Your task to perform on an android device: Search for Mexican restaurants on Maps Image 0: 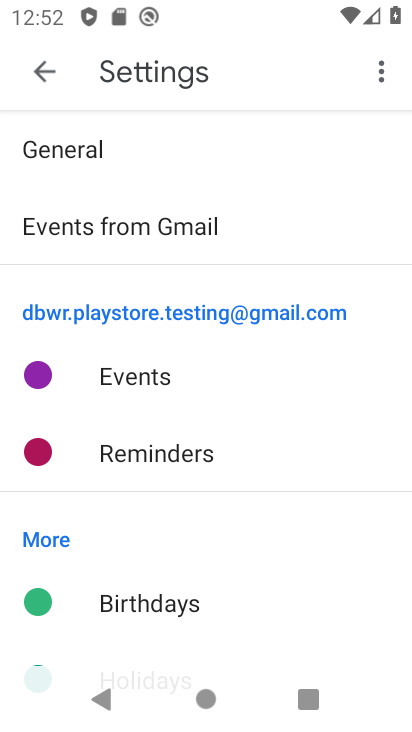
Step 0: press home button
Your task to perform on an android device: Search for Mexican restaurants on Maps Image 1: 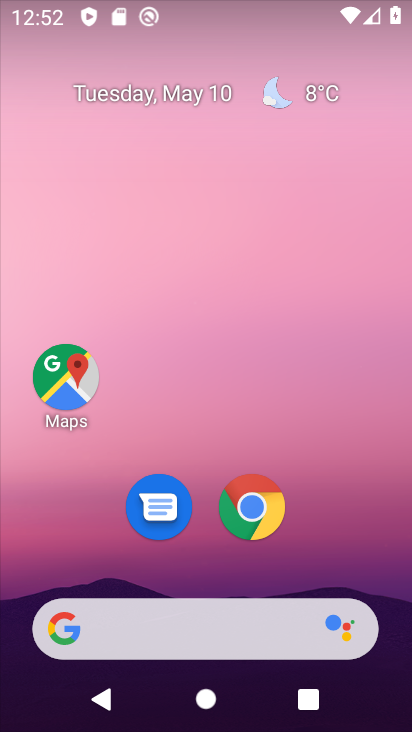
Step 1: drag from (231, 724) to (235, 279)
Your task to perform on an android device: Search for Mexican restaurants on Maps Image 2: 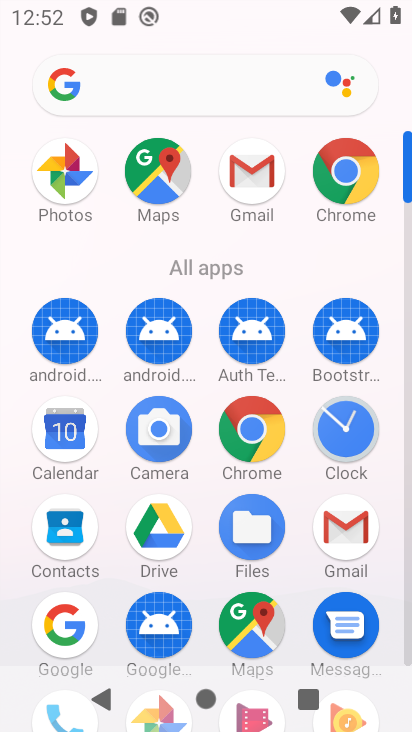
Step 2: click (252, 626)
Your task to perform on an android device: Search for Mexican restaurants on Maps Image 3: 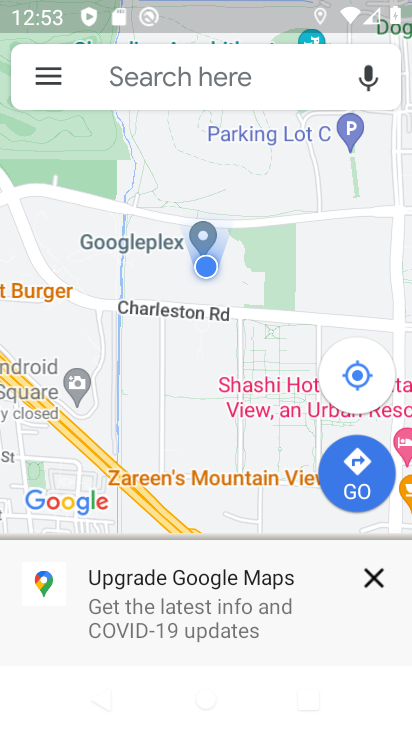
Step 3: type "Mexican restaurants"
Your task to perform on an android device: Search for Mexican restaurants on Maps Image 4: 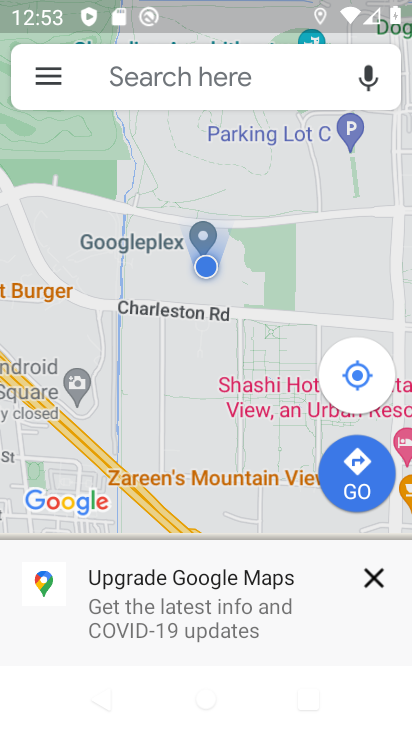
Step 4: click (193, 89)
Your task to perform on an android device: Search for Mexican restaurants on Maps Image 5: 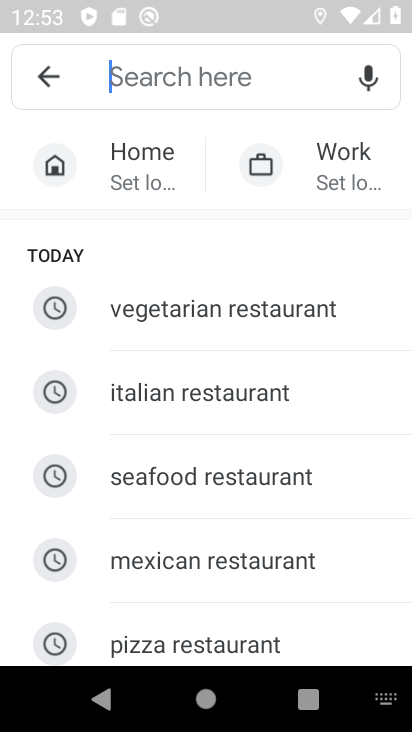
Step 5: type "Mexican restaurants"
Your task to perform on an android device: Search for Mexican restaurants on Maps Image 6: 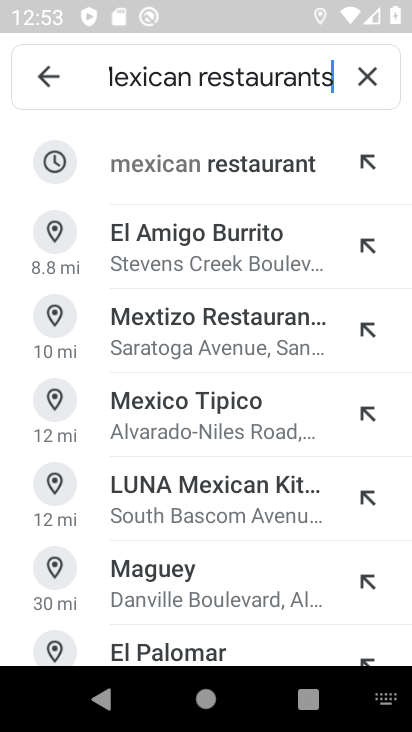
Step 6: click (191, 159)
Your task to perform on an android device: Search for Mexican restaurants on Maps Image 7: 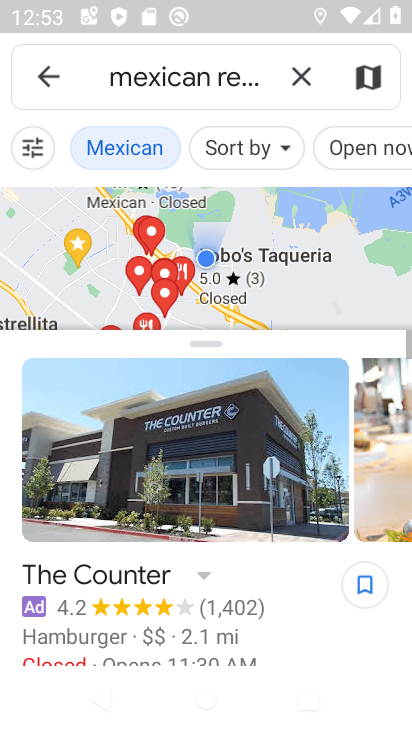
Step 7: task complete